Your task to perform on an android device: toggle improve location accuracy Image 0: 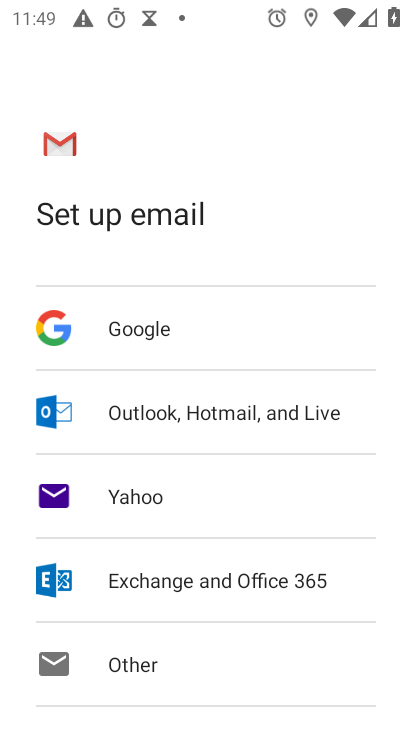
Step 0: press home button
Your task to perform on an android device: toggle improve location accuracy Image 1: 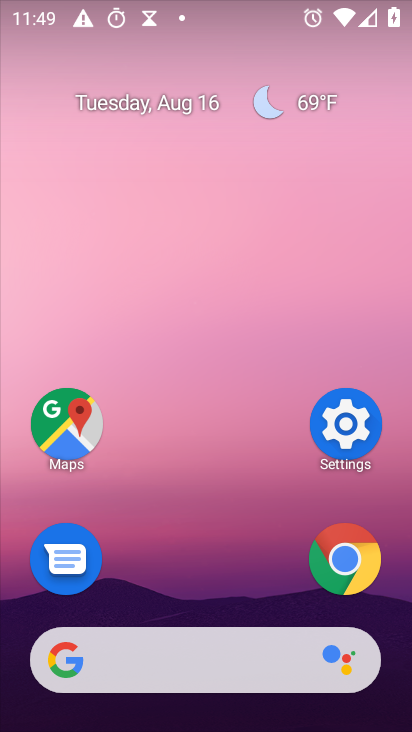
Step 1: click (347, 424)
Your task to perform on an android device: toggle improve location accuracy Image 2: 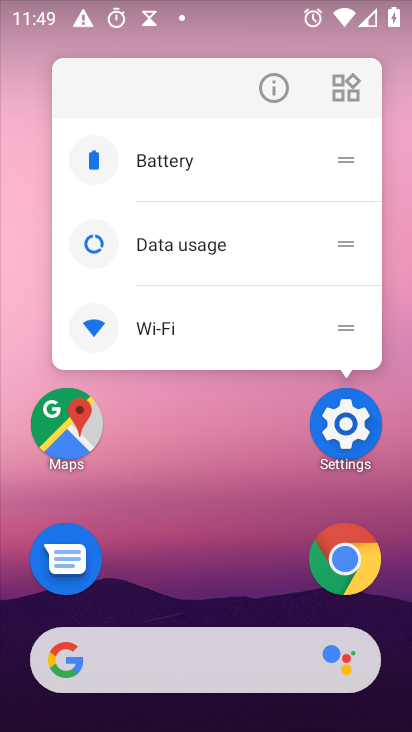
Step 2: click (347, 432)
Your task to perform on an android device: toggle improve location accuracy Image 3: 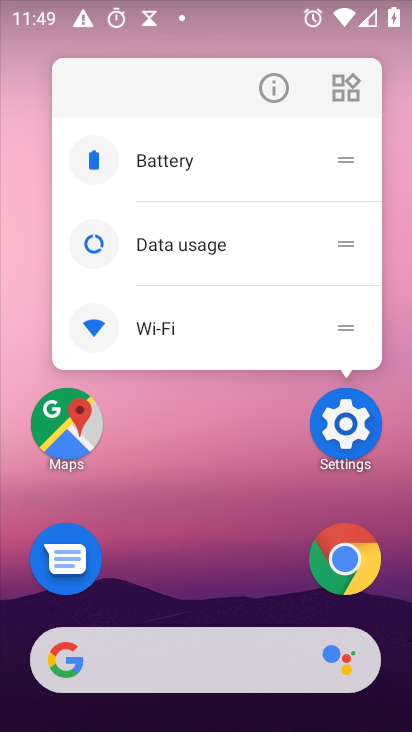
Step 3: click (347, 430)
Your task to perform on an android device: toggle improve location accuracy Image 4: 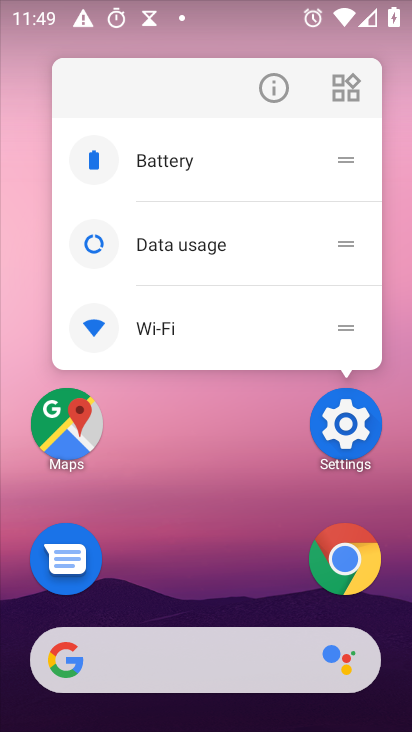
Step 4: click (350, 425)
Your task to perform on an android device: toggle improve location accuracy Image 5: 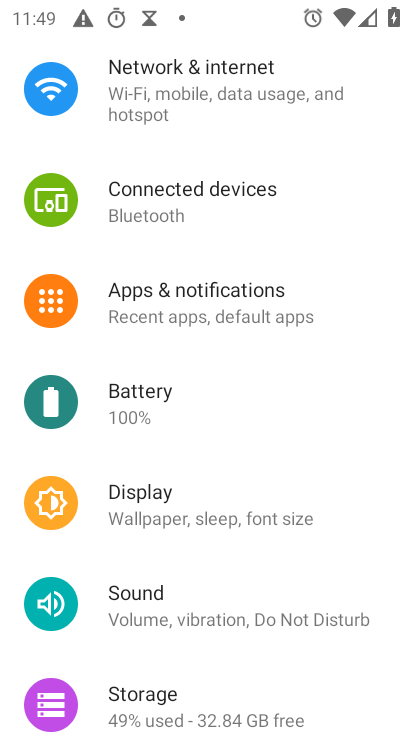
Step 5: drag from (227, 676) to (324, 292)
Your task to perform on an android device: toggle improve location accuracy Image 6: 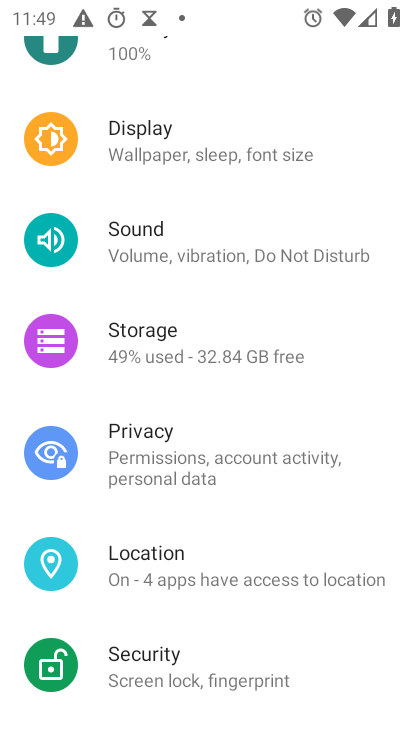
Step 6: click (175, 565)
Your task to perform on an android device: toggle improve location accuracy Image 7: 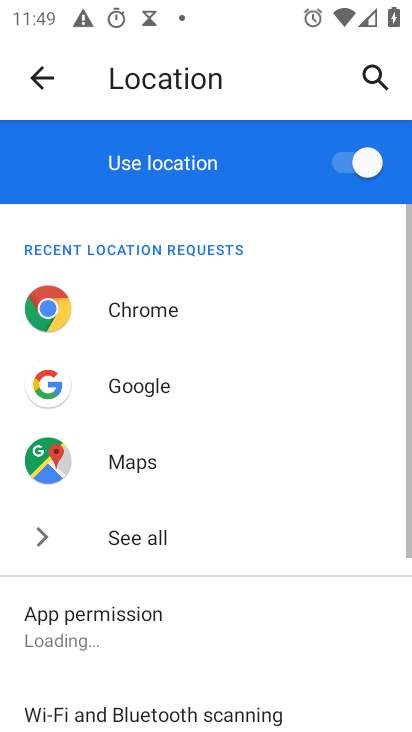
Step 7: drag from (230, 671) to (357, 152)
Your task to perform on an android device: toggle improve location accuracy Image 8: 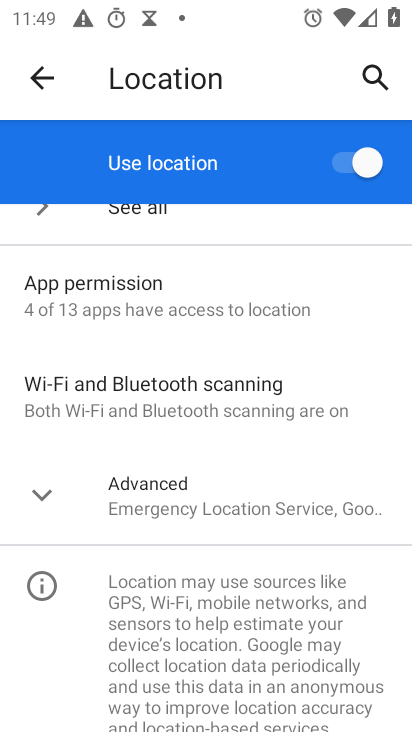
Step 8: click (153, 506)
Your task to perform on an android device: toggle improve location accuracy Image 9: 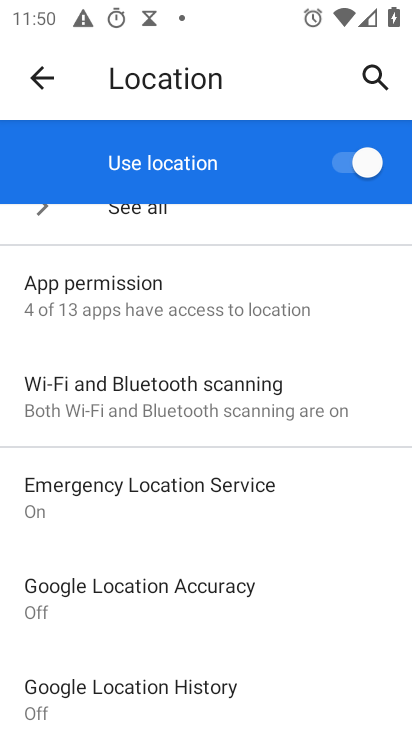
Step 9: click (215, 583)
Your task to perform on an android device: toggle improve location accuracy Image 10: 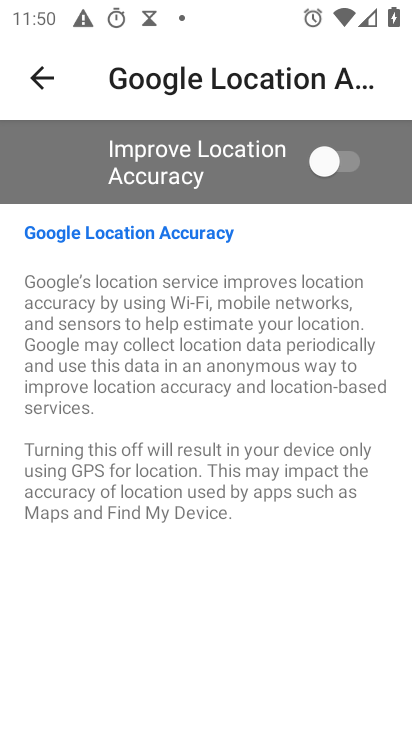
Step 10: click (344, 159)
Your task to perform on an android device: toggle improve location accuracy Image 11: 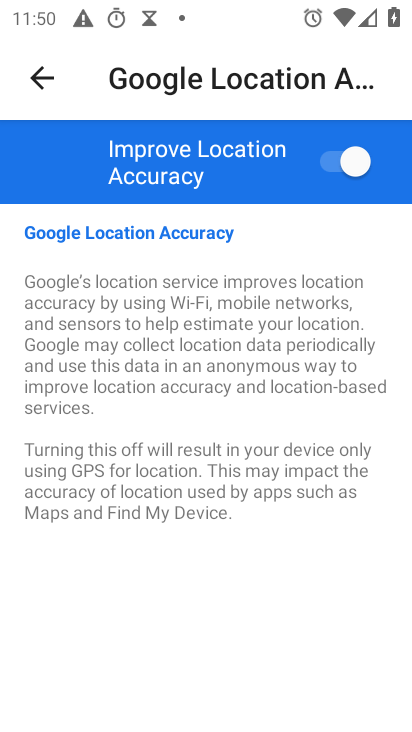
Step 11: task complete